Your task to perform on an android device: read, delete, or share a saved page in the chrome app Image 0: 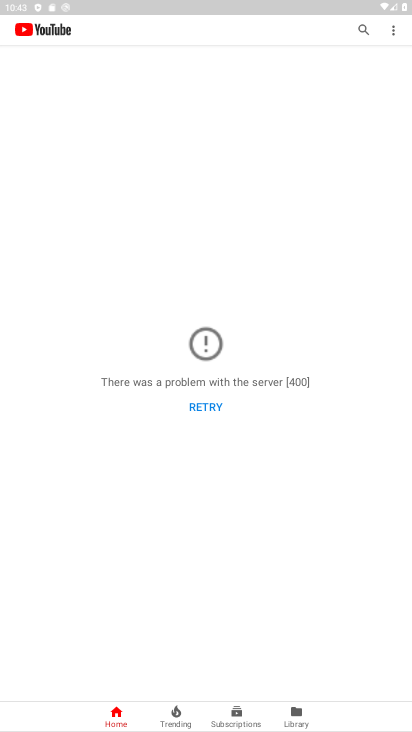
Step 0: press home button
Your task to perform on an android device: read, delete, or share a saved page in the chrome app Image 1: 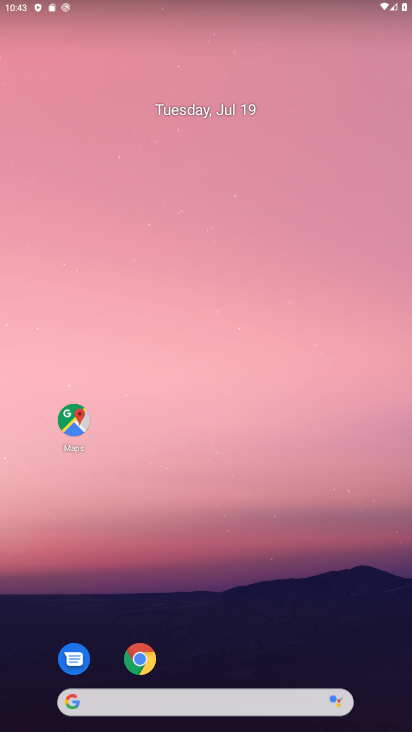
Step 1: drag from (148, 649) to (213, 92)
Your task to perform on an android device: read, delete, or share a saved page in the chrome app Image 2: 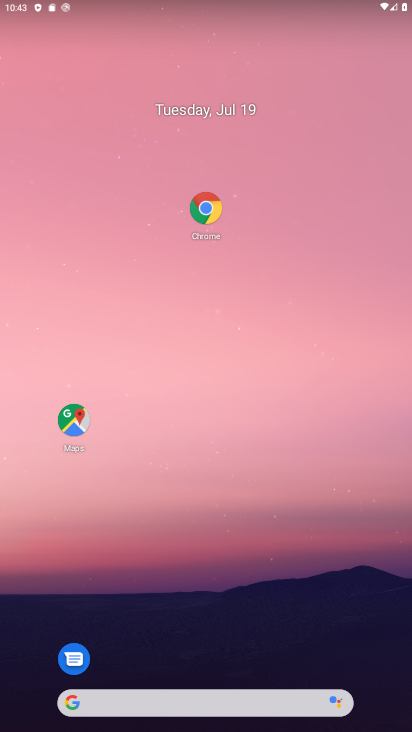
Step 2: click (212, 215)
Your task to perform on an android device: read, delete, or share a saved page in the chrome app Image 3: 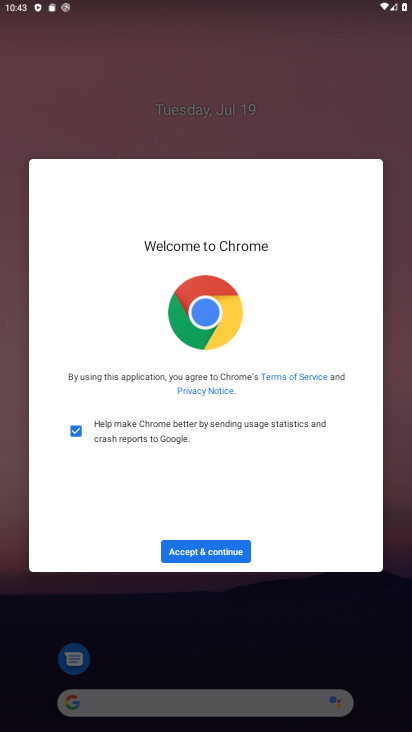
Step 3: click (214, 548)
Your task to perform on an android device: read, delete, or share a saved page in the chrome app Image 4: 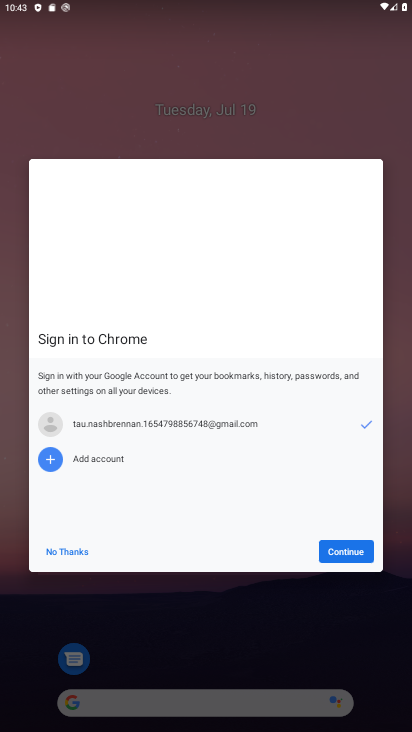
Step 4: click (332, 552)
Your task to perform on an android device: read, delete, or share a saved page in the chrome app Image 5: 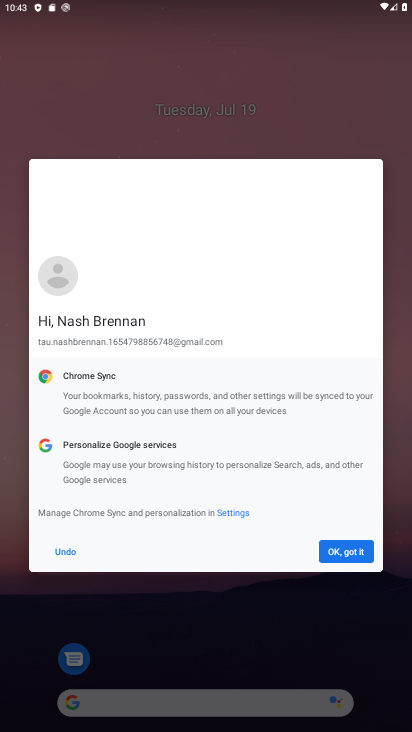
Step 5: click (331, 552)
Your task to perform on an android device: read, delete, or share a saved page in the chrome app Image 6: 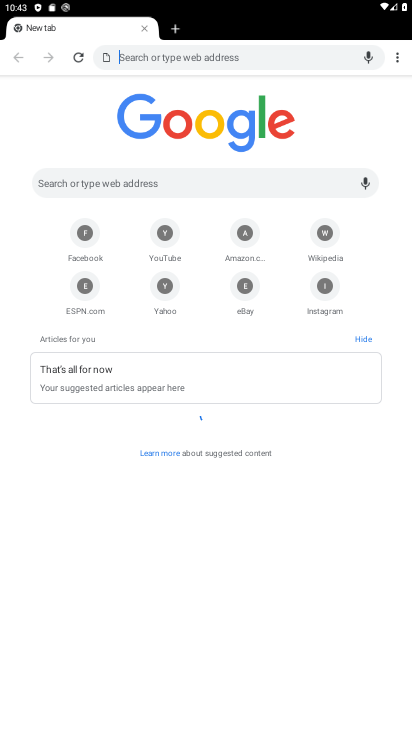
Step 6: drag from (390, 52) to (310, 202)
Your task to perform on an android device: read, delete, or share a saved page in the chrome app Image 7: 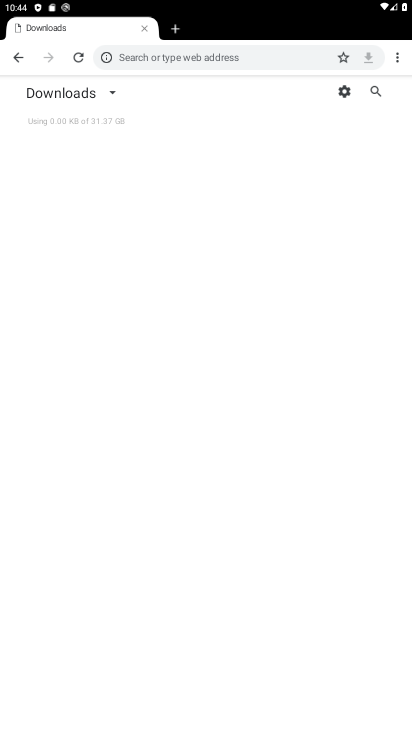
Step 7: click (110, 105)
Your task to perform on an android device: read, delete, or share a saved page in the chrome app Image 8: 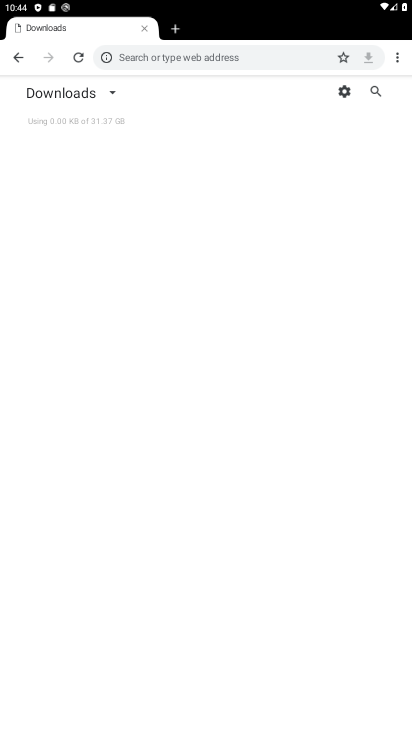
Step 8: click (105, 99)
Your task to perform on an android device: read, delete, or share a saved page in the chrome app Image 9: 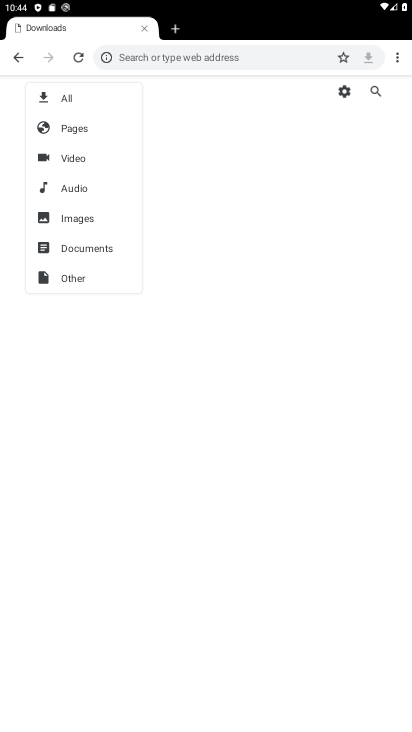
Step 9: click (87, 134)
Your task to perform on an android device: read, delete, or share a saved page in the chrome app Image 10: 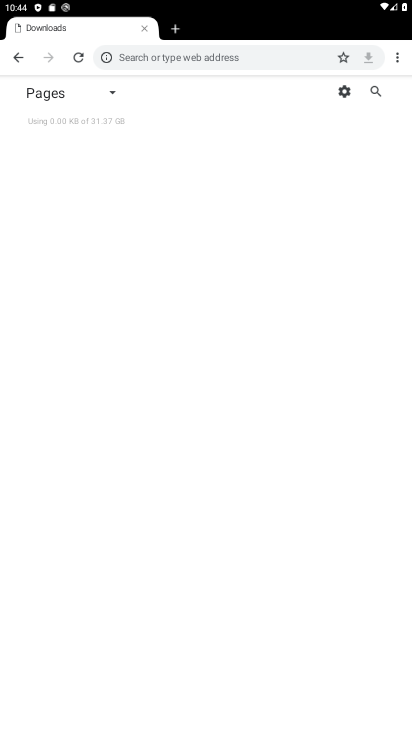
Step 10: task complete